Your task to perform on an android device: Go to sound settings Image 0: 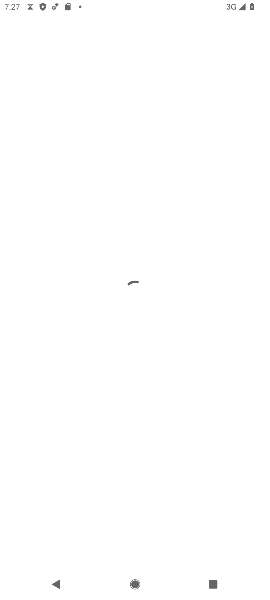
Step 0: press home button
Your task to perform on an android device: Go to sound settings Image 1: 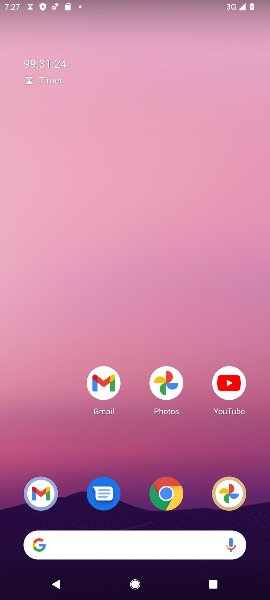
Step 1: drag from (119, 524) to (181, 71)
Your task to perform on an android device: Go to sound settings Image 2: 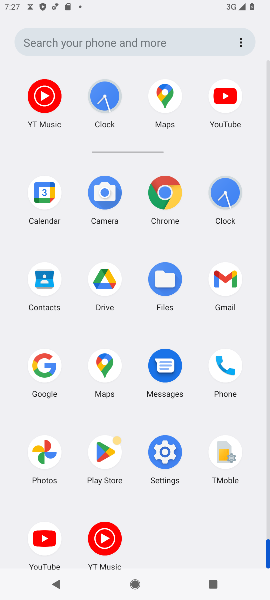
Step 2: click (165, 451)
Your task to perform on an android device: Go to sound settings Image 3: 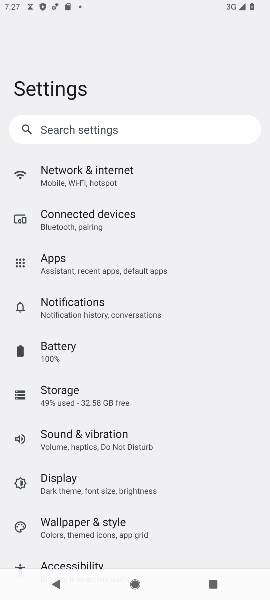
Step 3: drag from (76, 506) to (121, 197)
Your task to perform on an android device: Go to sound settings Image 4: 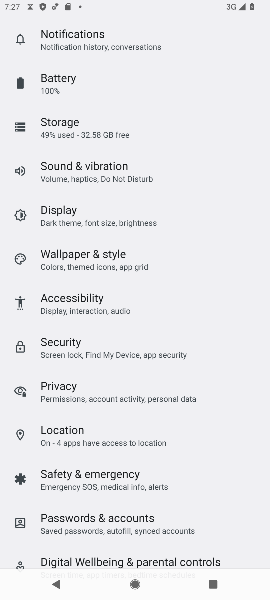
Step 4: drag from (127, 455) to (158, 81)
Your task to perform on an android device: Go to sound settings Image 5: 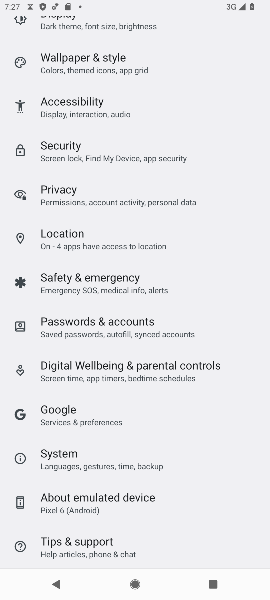
Step 5: drag from (124, 125) to (132, 502)
Your task to perform on an android device: Go to sound settings Image 6: 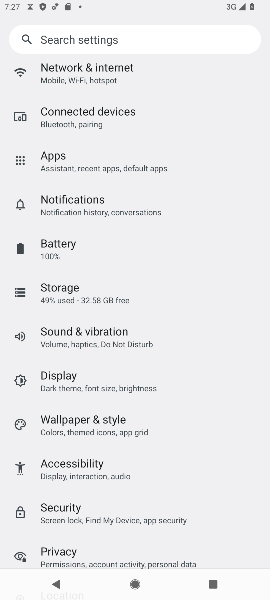
Step 6: click (72, 322)
Your task to perform on an android device: Go to sound settings Image 7: 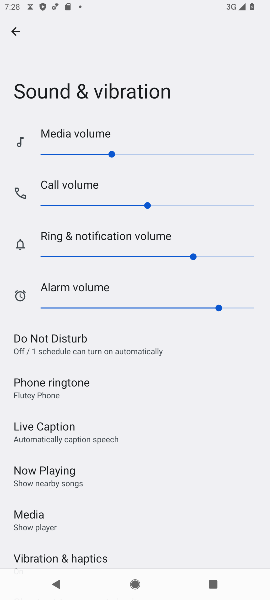
Step 7: task complete